Your task to perform on an android device: turn on bluetooth scan Image 0: 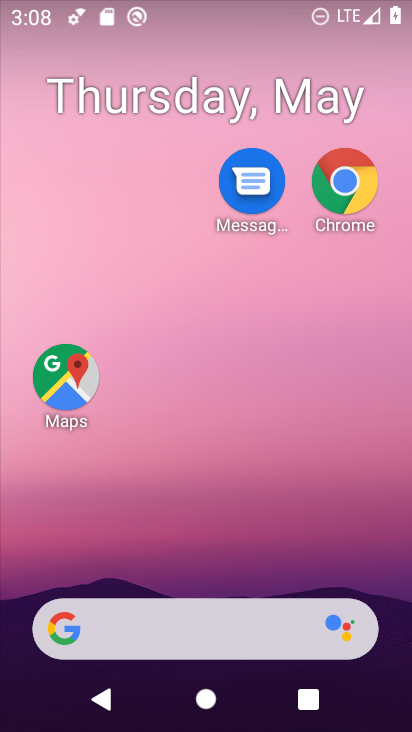
Step 0: drag from (243, 534) to (239, 88)
Your task to perform on an android device: turn on bluetooth scan Image 1: 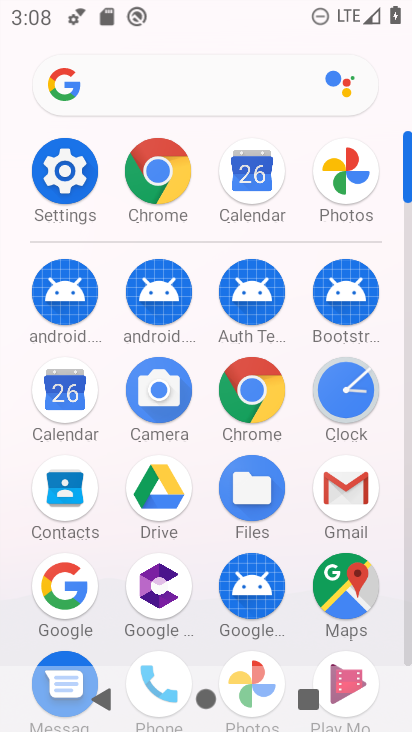
Step 1: click (66, 161)
Your task to perform on an android device: turn on bluetooth scan Image 2: 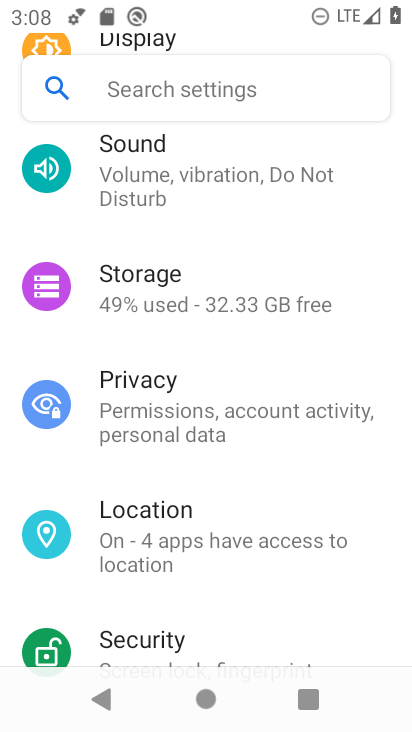
Step 2: drag from (176, 589) to (191, 730)
Your task to perform on an android device: turn on bluetooth scan Image 3: 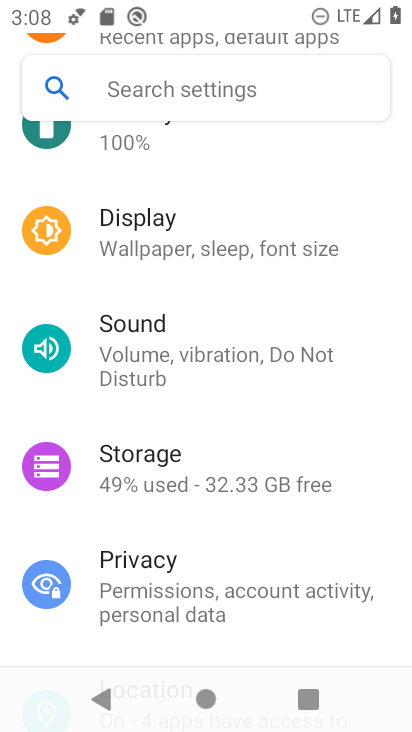
Step 3: drag from (171, 599) to (163, 250)
Your task to perform on an android device: turn on bluetooth scan Image 4: 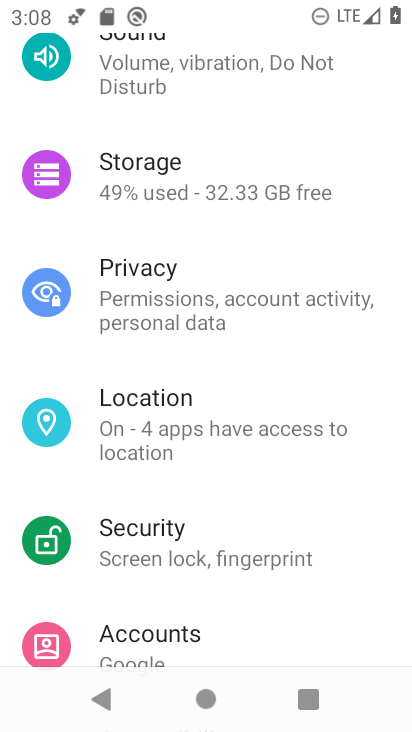
Step 4: click (181, 428)
Your task to perform on an android device: turn on bluetooth scan Image 5: 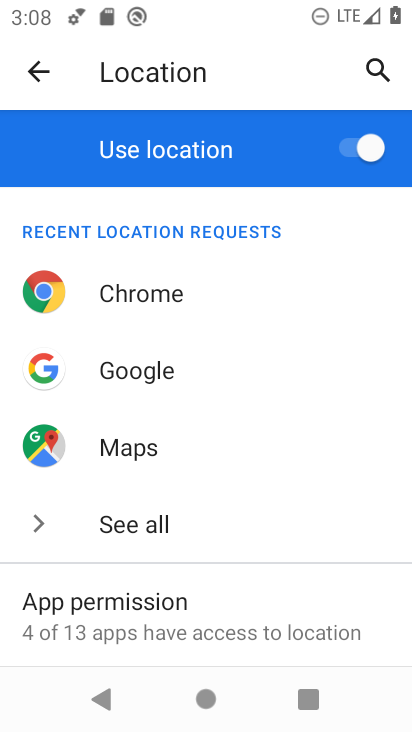
Step 5: drag from (227, 628) to (264, 166)
Your task to perform on an android device: turn on bluetooth scan Image 6: 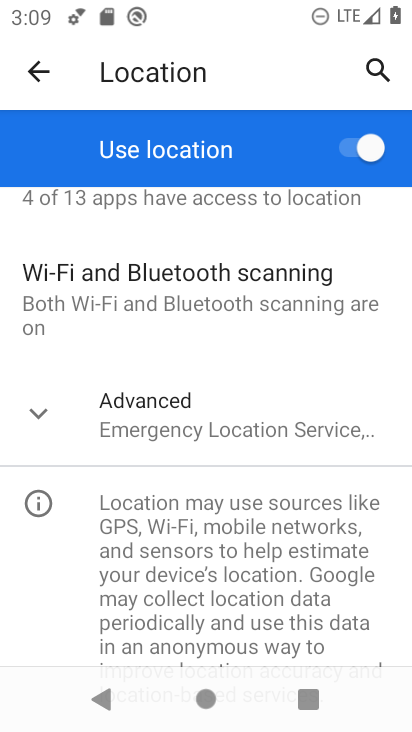
Step 6: click (250, 286)
Your task to perform on an android device: turn on bluetooth scan Image 7: 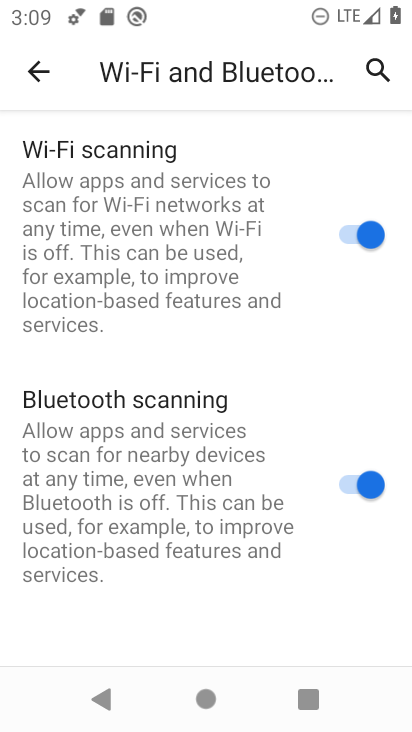
Step 7: task complete